Your task to perform on an android device: Open the web browser Image 0: 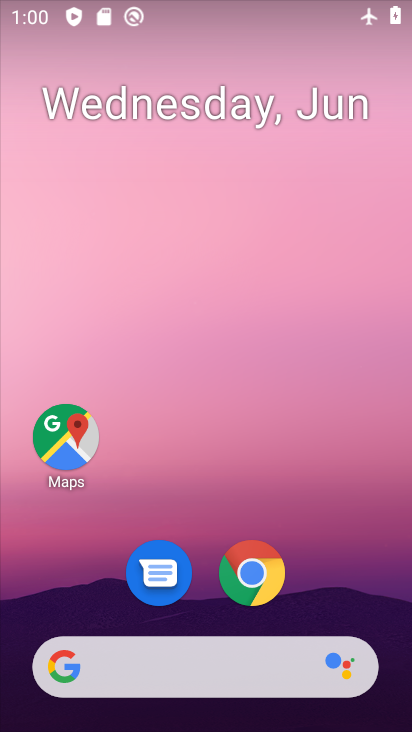
Step 0: press home button
Your task to perform on an android device: Open the web browser Image 1: 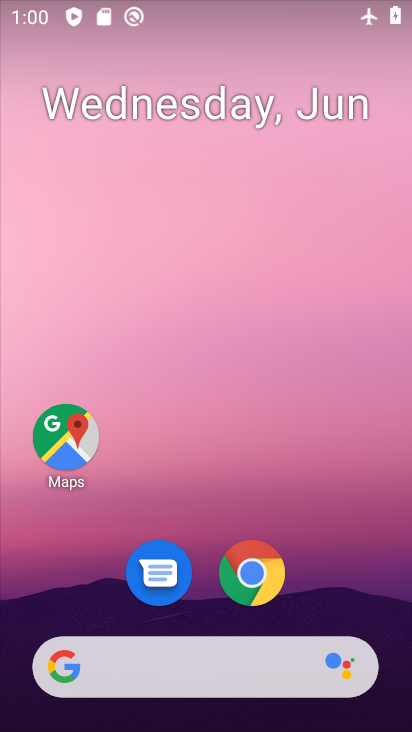
Step 1: drag from (345, 541) to (296, 137)
Your task to perform on an android device: Open the web browser Image 2: 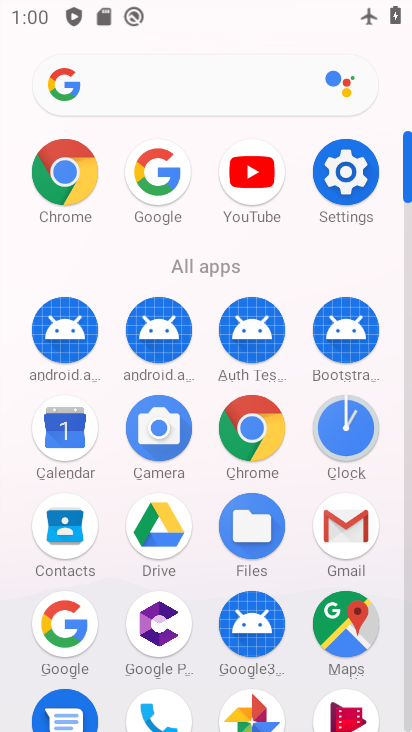
Step 2: click (64, 179)
Your task to perform on an android device: Open the web browser Image 3: 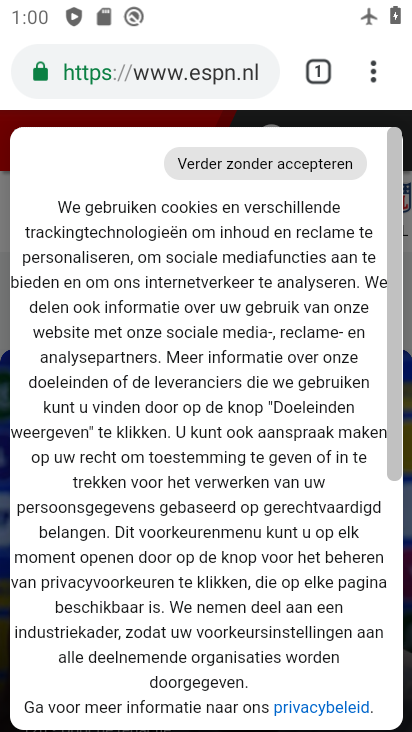
Step 3: task complete